Your task to perform on an android device: change timer sound Image 0: 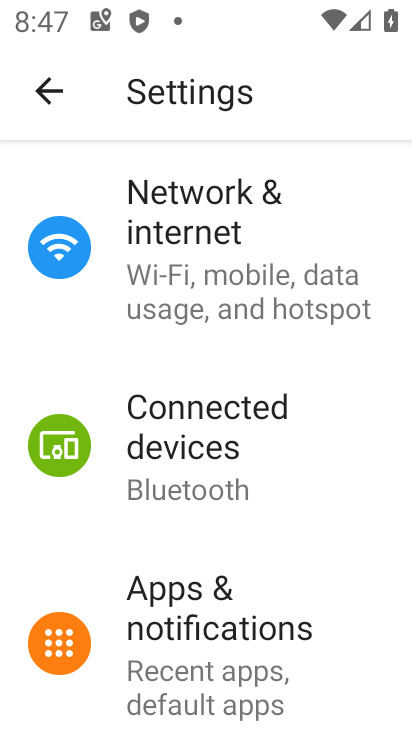
Step 0: press home button
Your task to perform on an android device: change timer sound Image 1: 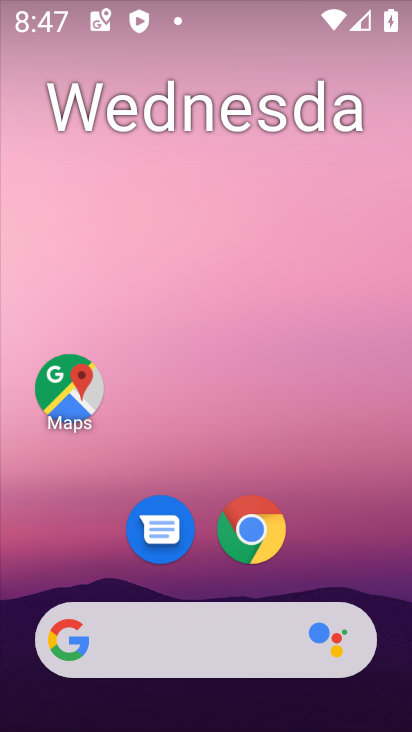
Step 1: drag from (300, 477) to (293, 280)
Your task to perform on an android device: change timer sound Image 2: 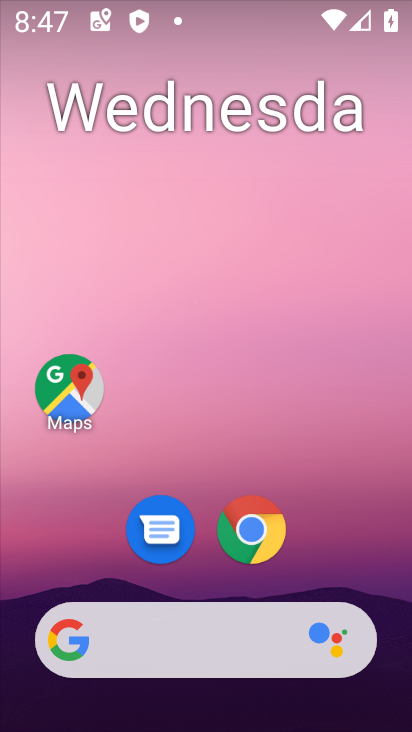
Step 2: drag from (305, 536) to (309, 296)
Your task to perform on an android device: change timer sound Image 3: 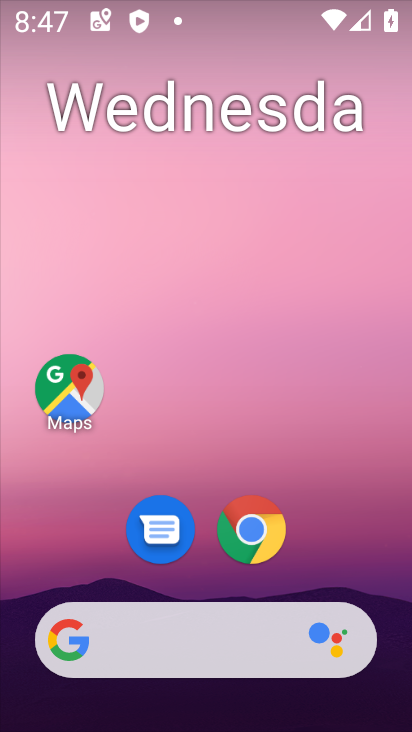
Step 3: drag from (284, 600) to (316, 312)
Your task to perform on an android device: change timer sound Image 4: 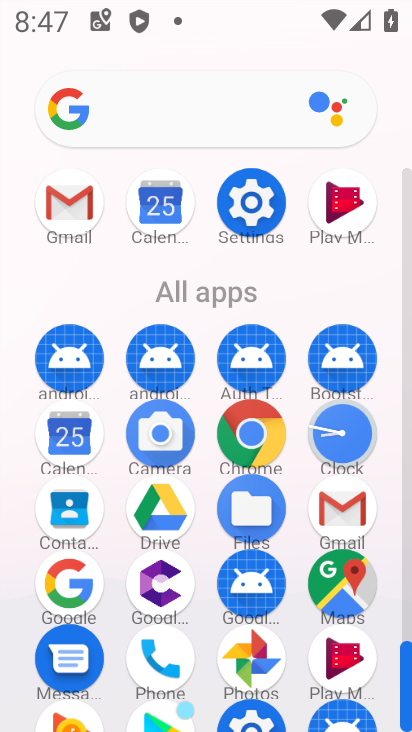
Step 4: click (362, 420)
Your task to perform on an android device: change timer sound Image 5: 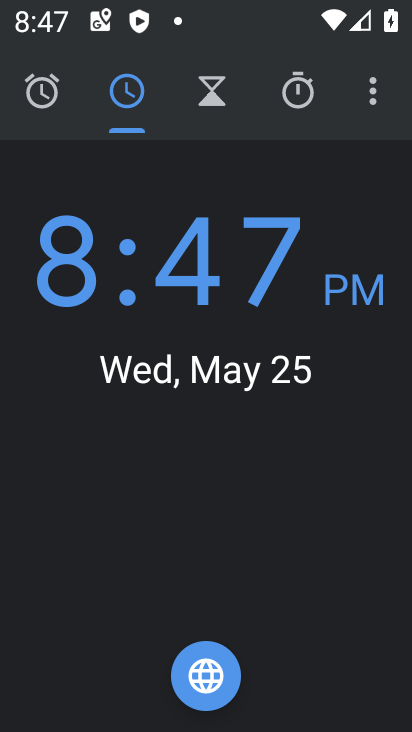
Step 5: click (369, 87)
Your task to perform on an android device: change timer sound Image 6: 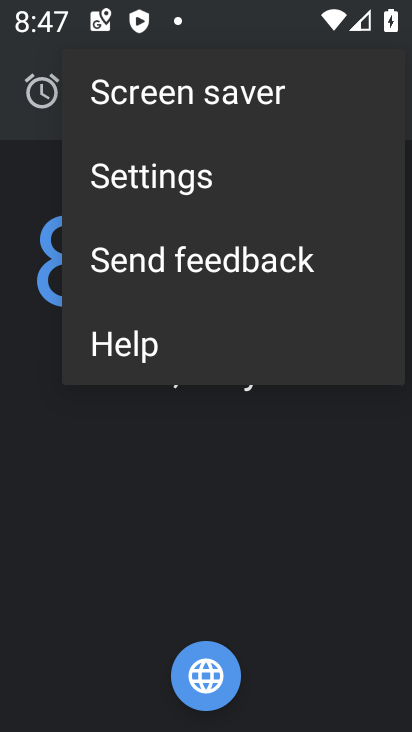
Step 6: click (167, 176)
Your task to perform on an android device: change timer sound Image 7: 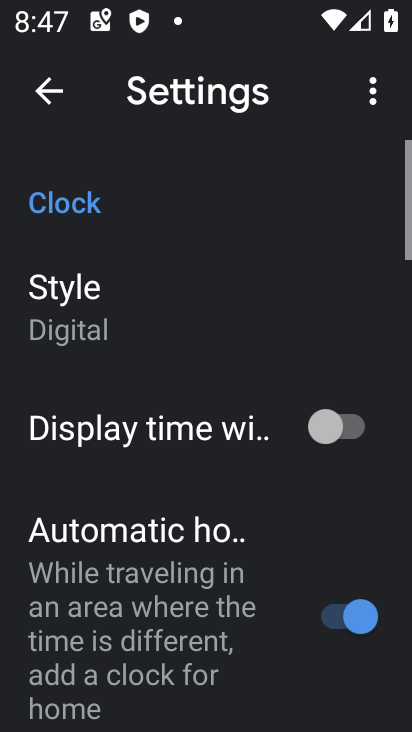
Step 7: drag from (164, 579) to (173, 216)
Your task to perform on an android device: change timer sound Image 8: 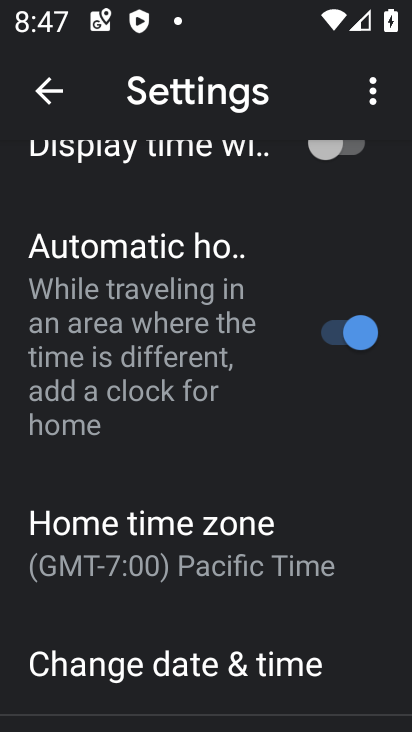
Step 8: drag from (158, 629) to (186, 249)
Your task to perform on an android device: change timer sound Image 9: 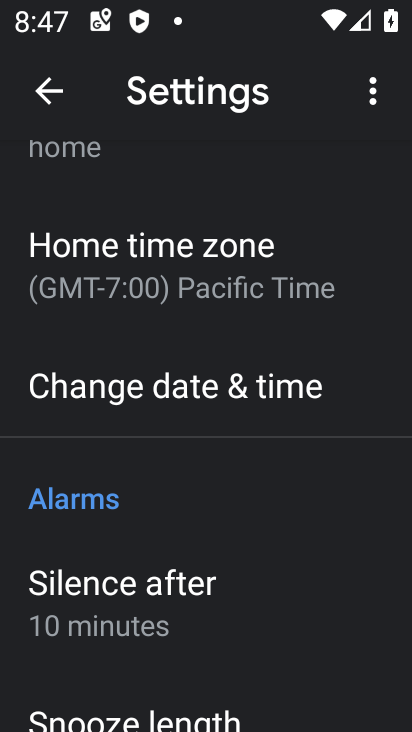
Step 9: drag from (133, 596) to (165, 279)
Your task to perform on an android device: change timer sound Image 10: 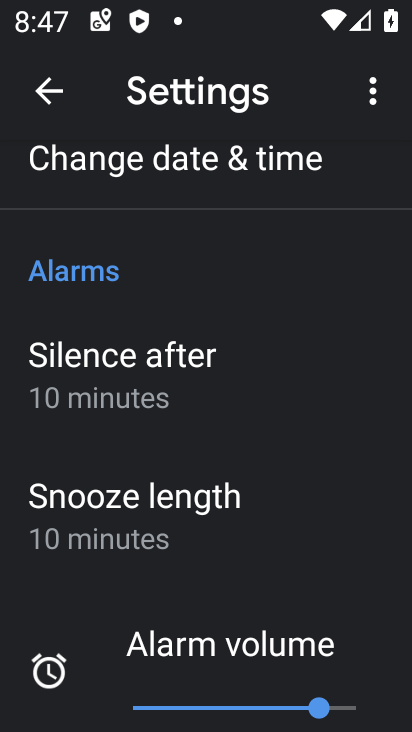
Step 10: drag from (157, 632) to (188, 272)
Your task to perform on an android device: change timer sound Image 11: 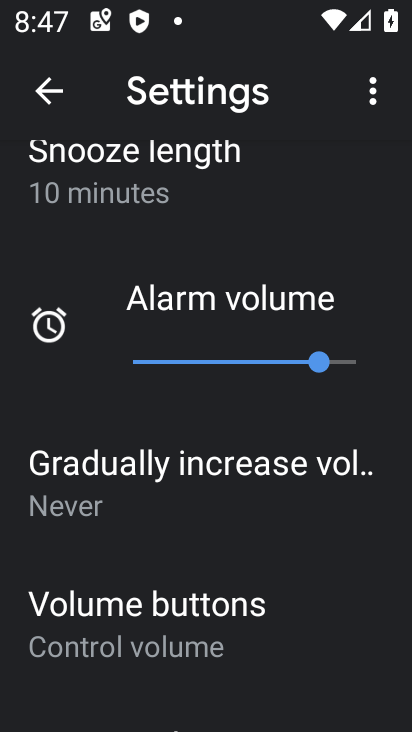
Step 11: drag from (172, 646) to (205, 282)
Your task to perform on an android device: change timer sound Image 12: 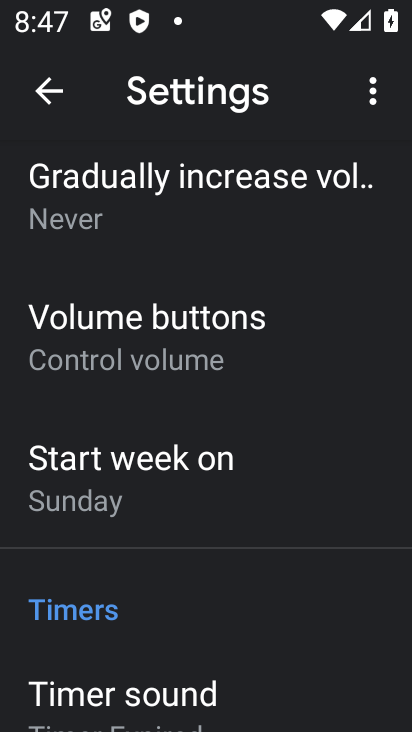
Step 12: click (119, 679)
Your task to perform on an android device: change timer sound Image 13: 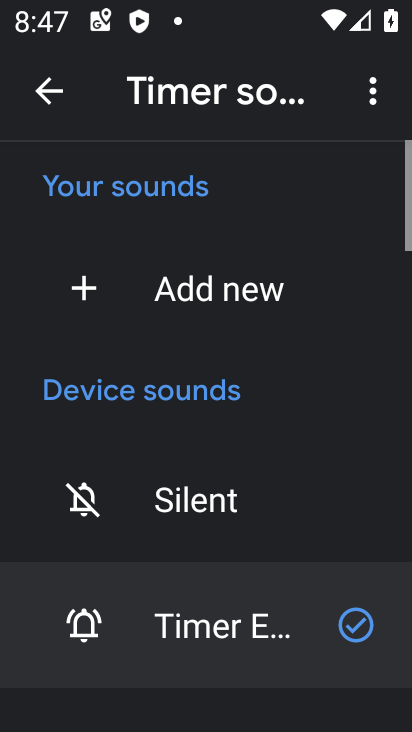
Step 13: drag from (187, 544) to (206, 280)
Your task to perform on an android device: change timer sound Image 14: 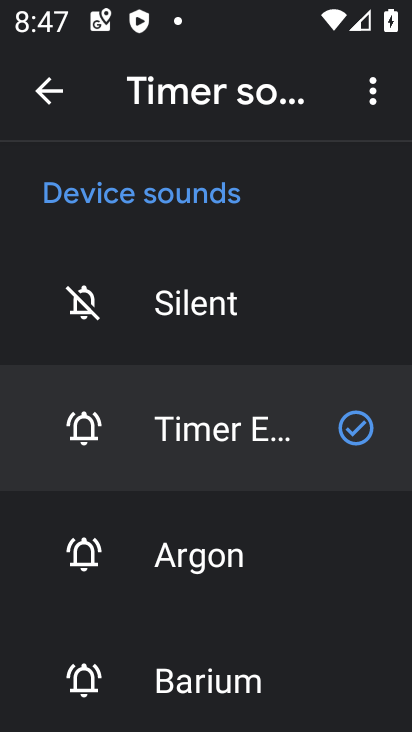
Step 14: click (160, 668)
Your task to perform on an android device: change timer sound Image 15: 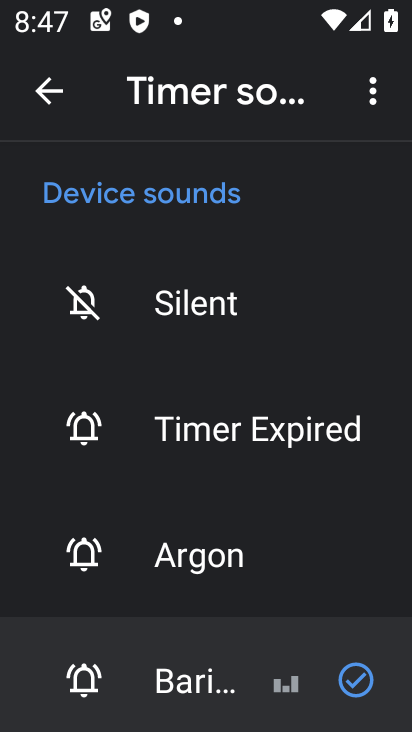
Step 15: task complete